Your task to perform on an android device: Open settings on Google Maps Image 0: 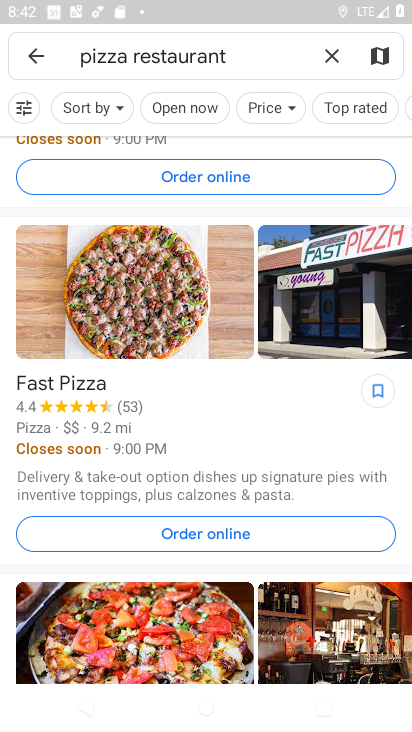
Step 0: drag from (295, 333) to (328, 669)
Your task to perform on an android device: Open settings on Google Maps Image 1: 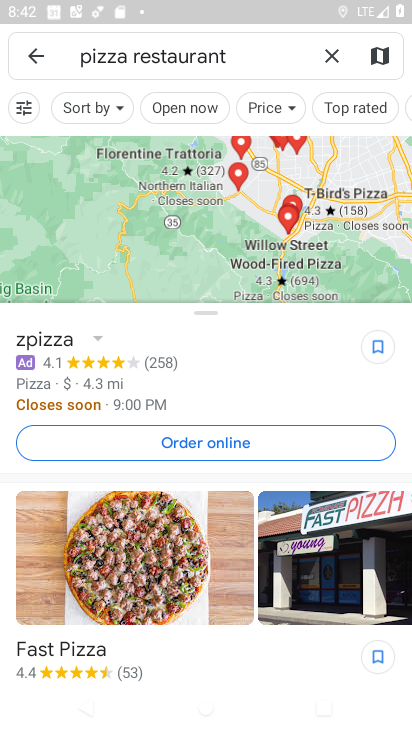
Step 1: click (32, 58)
Your task to perform on an android device: Open settings on Google Maps Image 2: 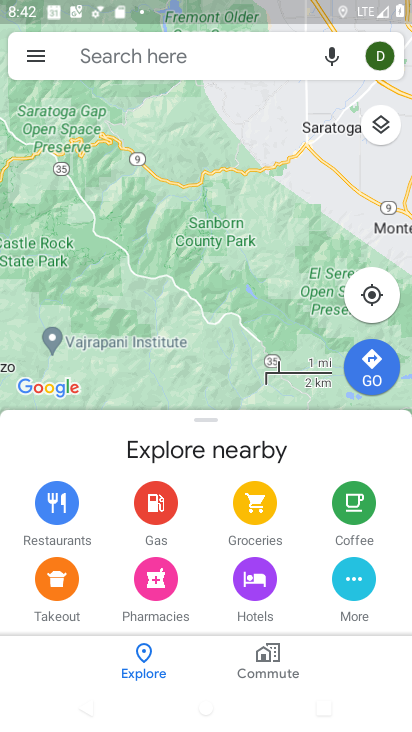
Step 2: click (34, 59)
Your task to perform on an android device: Open settings on Google Maps Image 3: 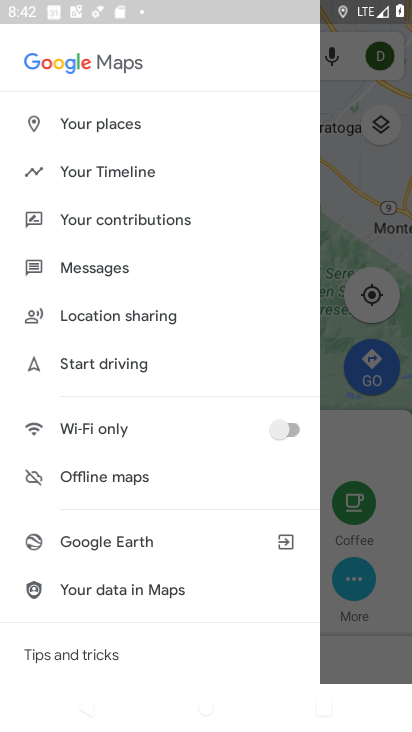
Step 3: drag from (134, 629) to (186, 208)
Your task to perform on an android device: Open settings on Google Maps Image 4: 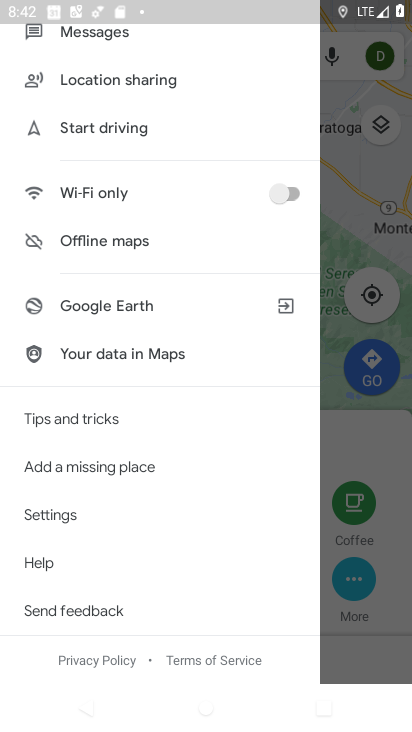
Step 4: click (75, 509)
Your task to perform on an android device: Open settings on Google Maps Image 5: 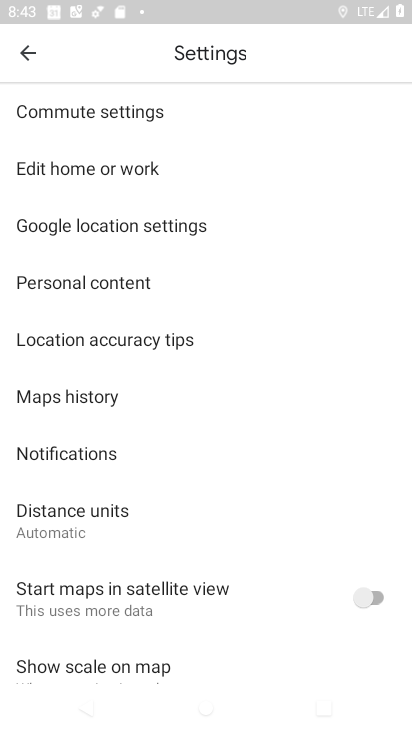
Step 5: task complete